Your task to perform on an android device: Open calendar and show me the first week of next month Image 0: 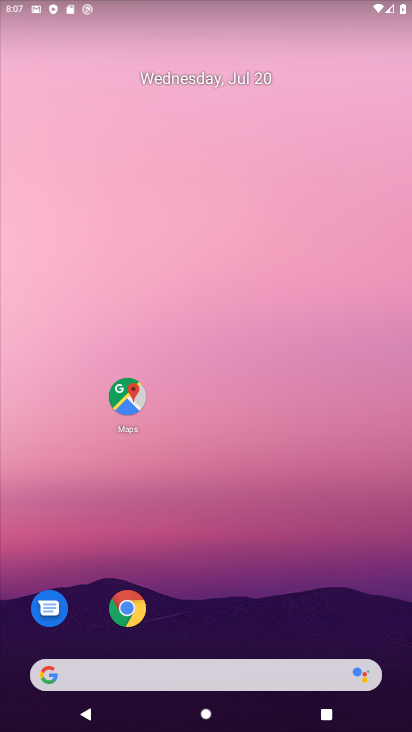
Step 0: drag from (4, 654) to (226, 106)
Your task to perform on an android device: Open calendar and show me the first week of next month Image 1: 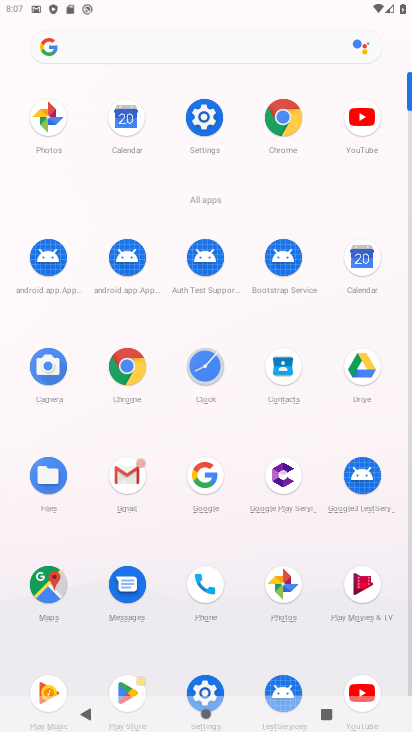
Step 1: click (364, 255)
Your task to perform on an android device: Open calendar and show me the first week of next month Image 2: 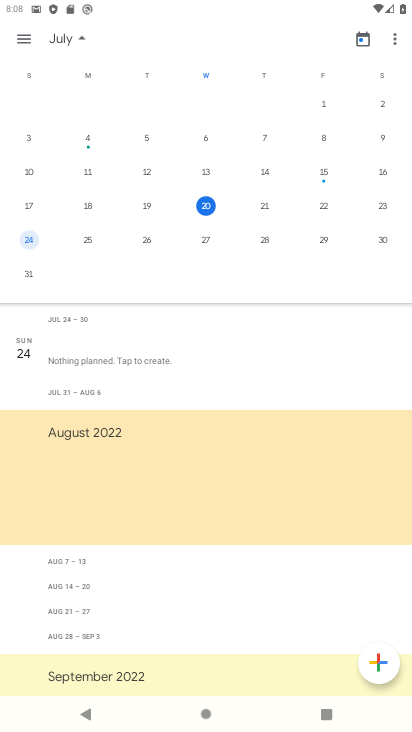
Step 2: task complete